Your task to perform on an android device: turn off wifi Image 0: 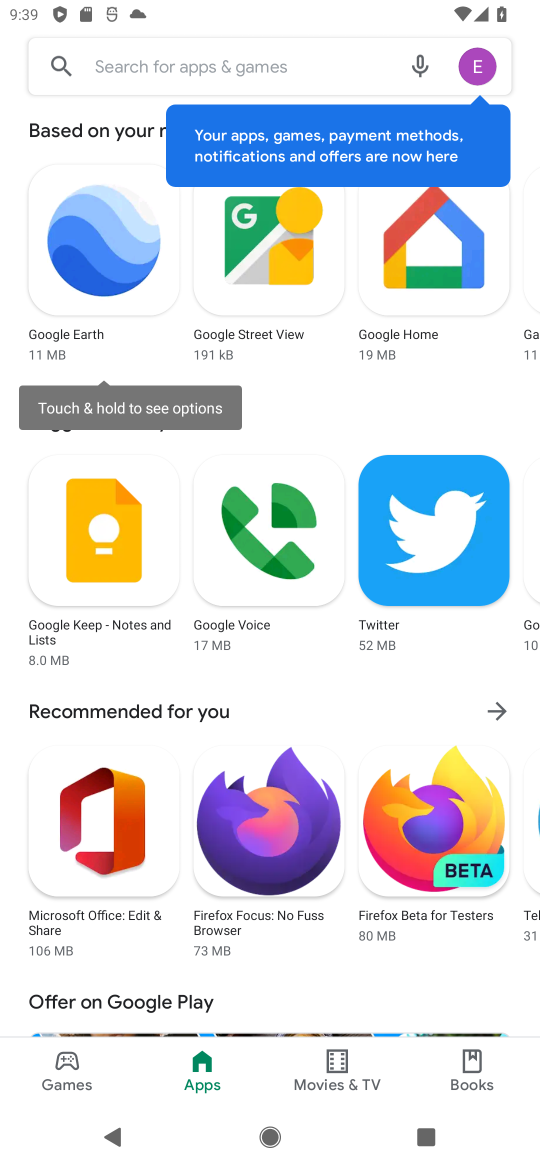
Step 0: press home button
Your task to perform on an android device: turn off wifi Image 1: 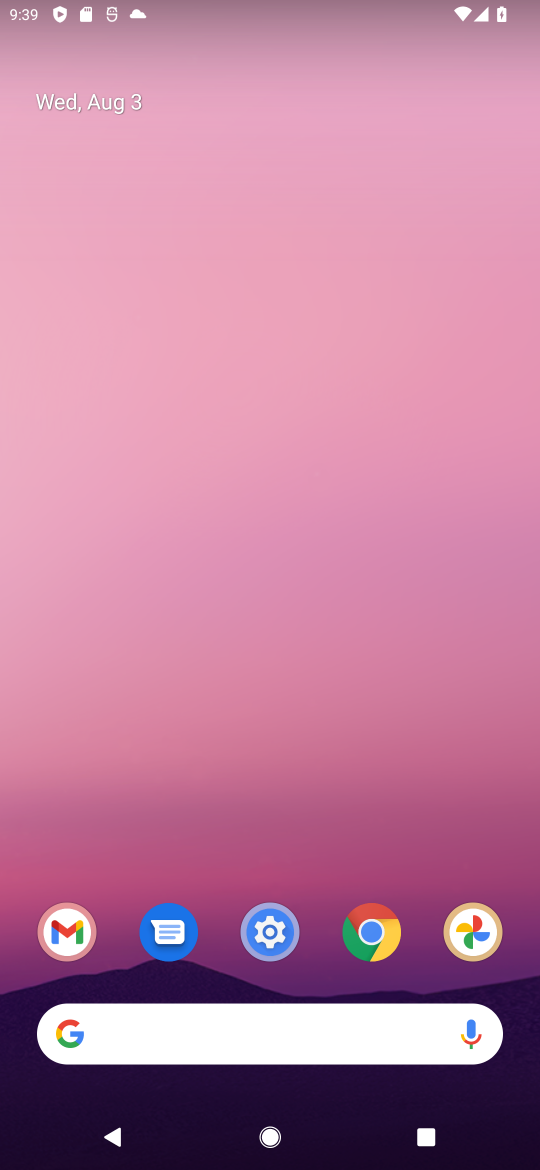
Step 1: drag from (421, 818) to (368, 7)
Your task to perform on an android device: turn off wifi Image 2: 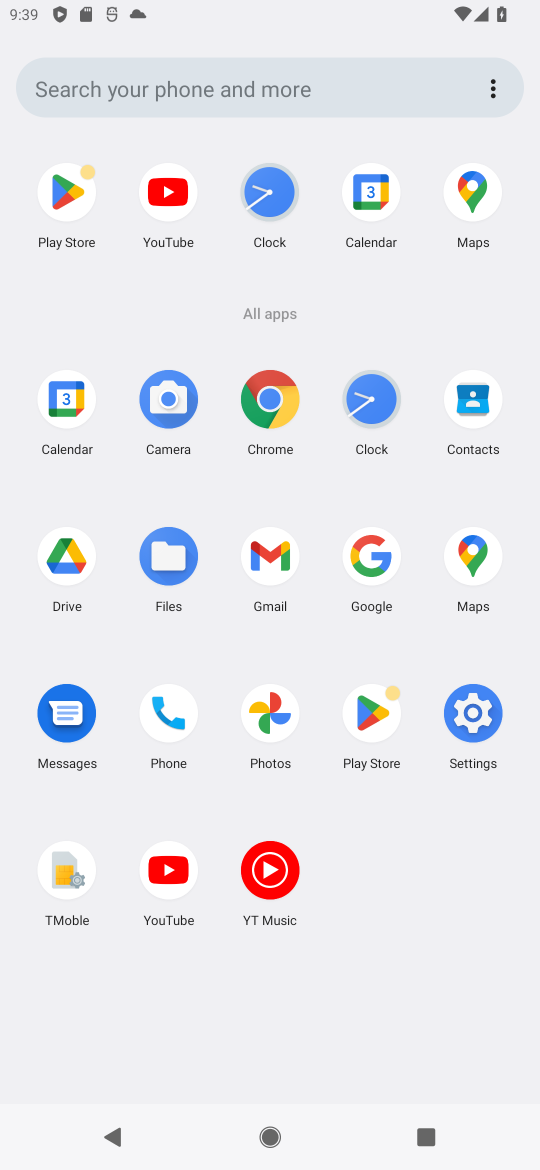
Step 2: click (484, 726)
Your task to perform on an android device: turn off wifi Image 3: 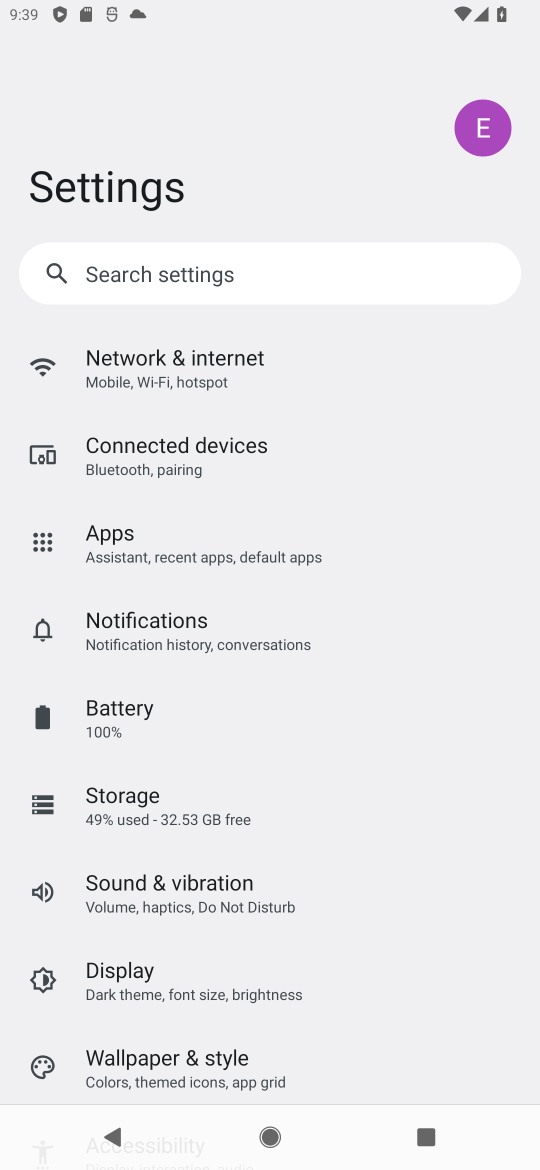
Step 3: click (269, 375)
Your task to perform on an android device: turn off wifi Image 4: 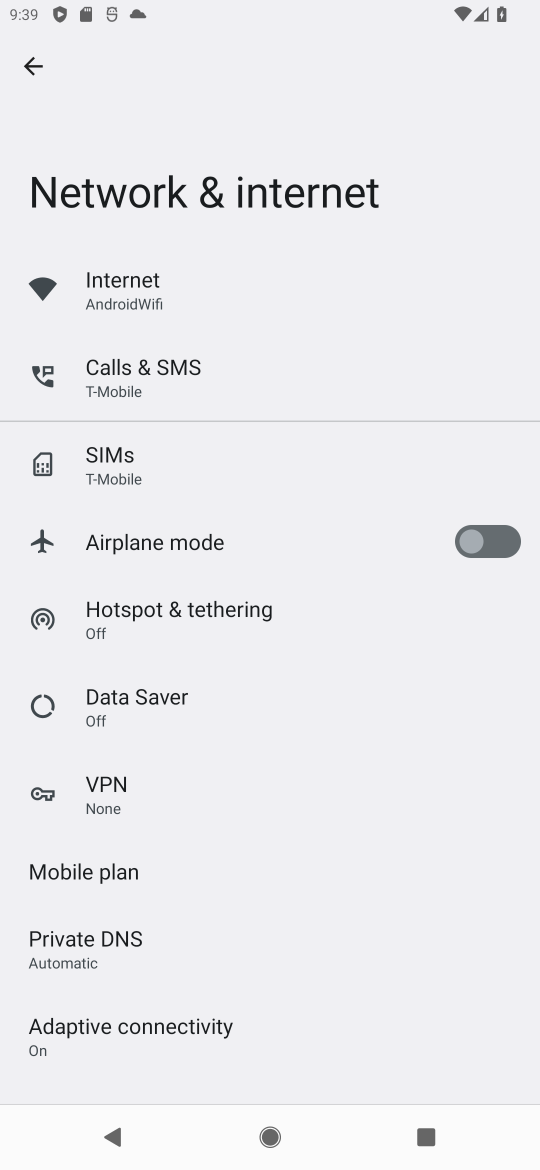
Step 4: click (230, 316)
Your task to perform on an android device: turn off wifi Image 5: 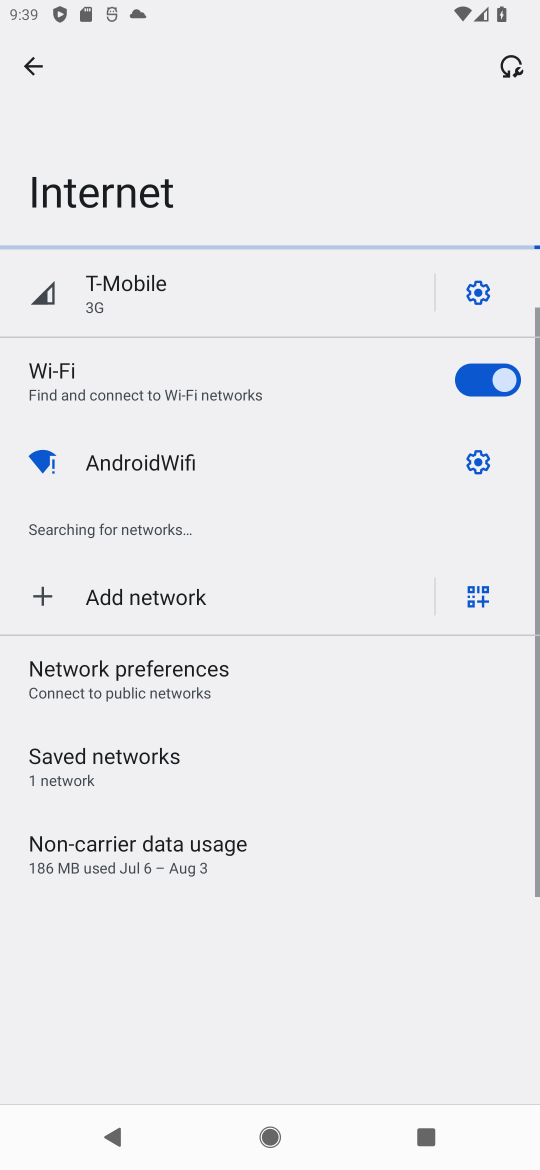
Step 5: click (476, 388)
Your task to perform on an android device: turn off wifi Image 6: 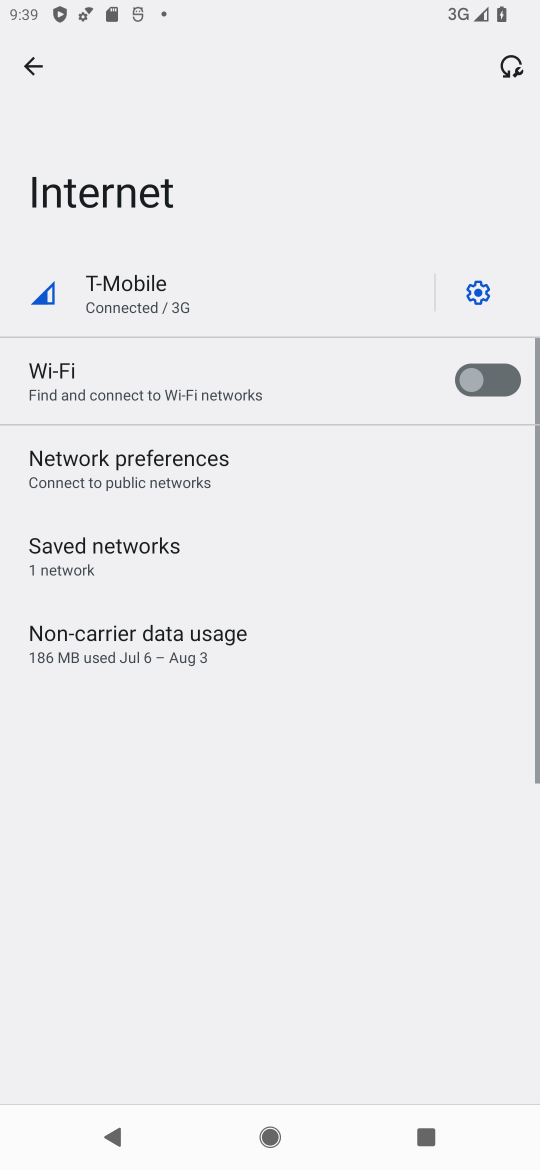
Step 6: task complete